Your task to perform on an android device: Open eBay Image 0: 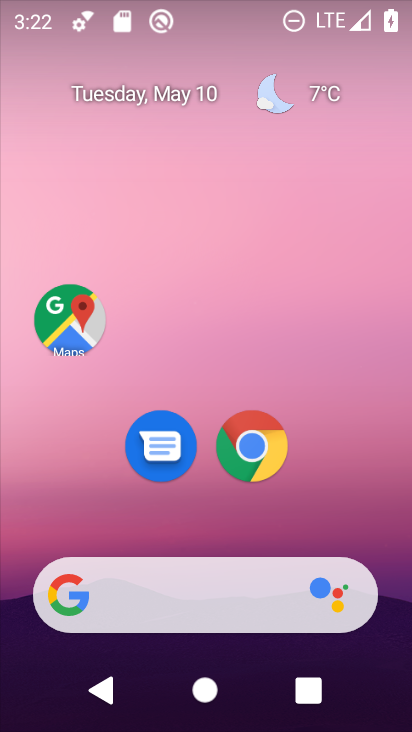
Step 0: click (258, 457)
Your task to perform on an android device: Open eBay Image 1: 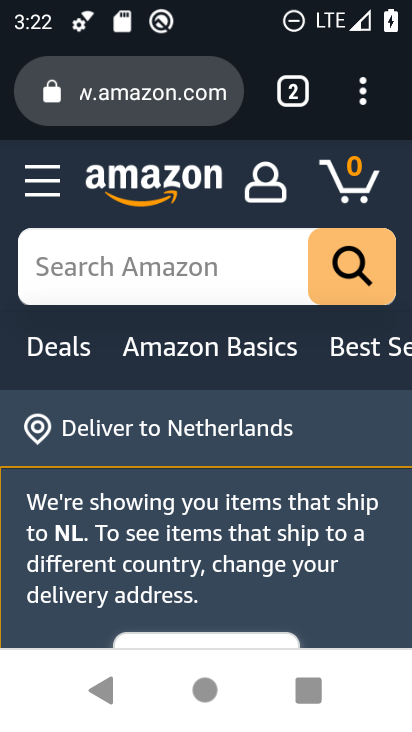
Step 1: click (283, 86)
Your task to perform on an android device: Open eBay Image 2: 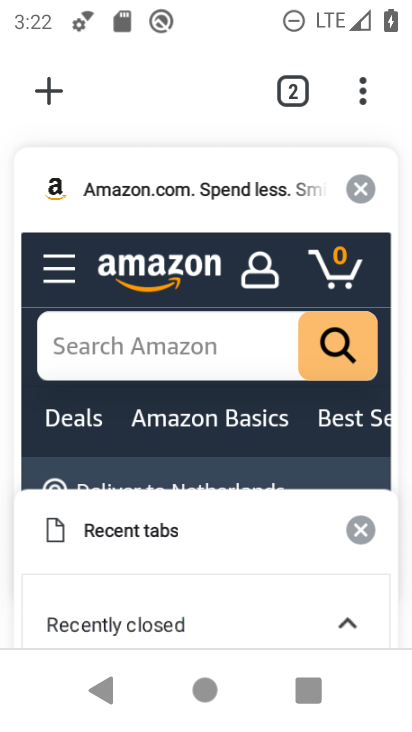
Step 2: click (49, 82)
Your task to perform on an android device: Open eBay Image 3: 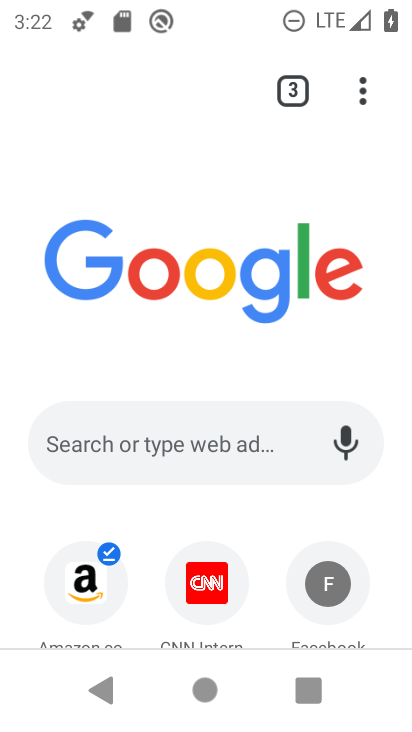
Step 3: drag from (266, 524) to (232, 200)
Your task to perform on an android device: Open eBay Image 4: 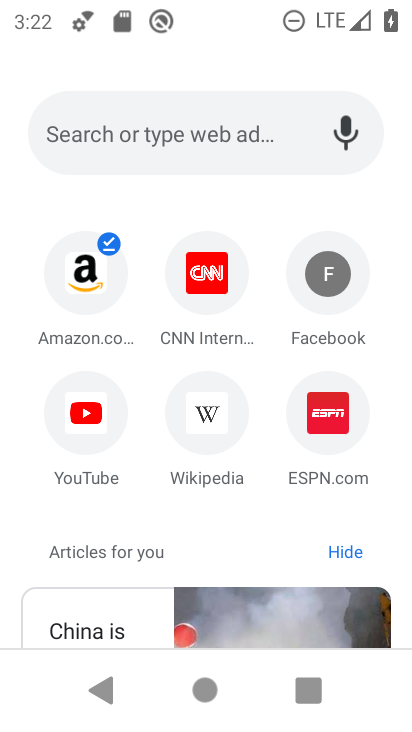
Step 4: click (203, 135)
Your task to perform on an android device: Open eBay Image 5: 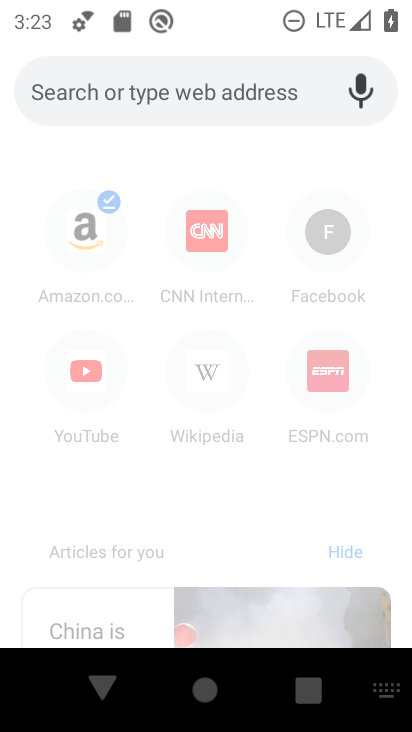
Step 5: type "eBay"
Your task to perform on an android device: Open eBay Image 6: 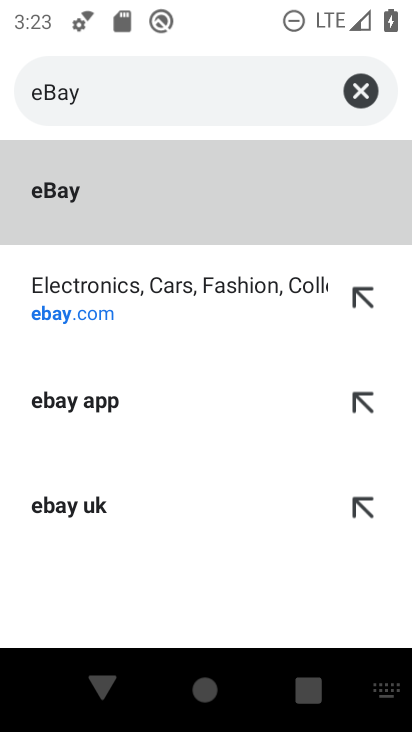
Step 6: click (196, 212)
Your task to perform on an android device: Open eBay Image 7: 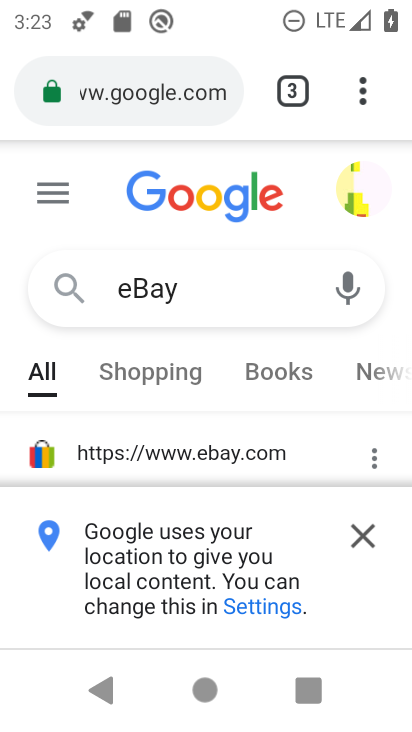
Step 7: task complete